Your task to perform on an android device: snooze an email in the gmail app Image 0: 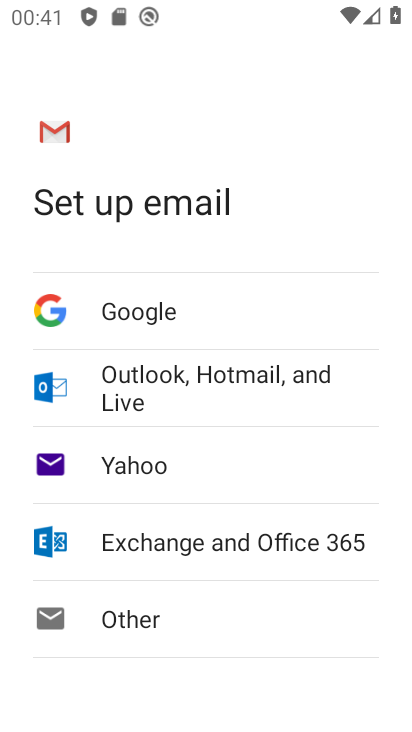
Step 0: press home button
Your task to perform on an android device: snooze an email in the gmail app Image 1: 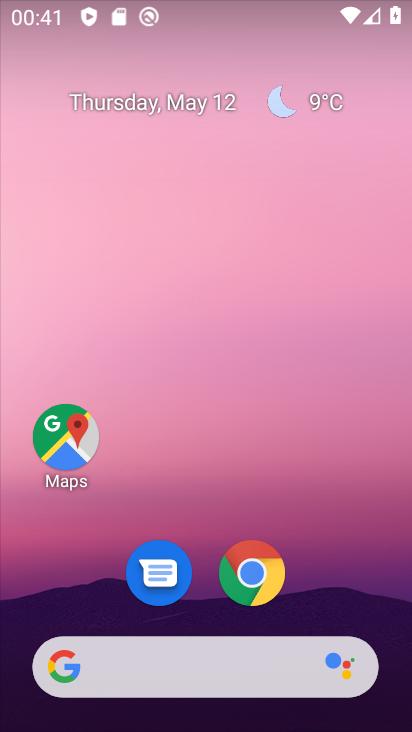
Step 1: drag from (204, 569) to (321, 3)
Your task to perform on an android device: snooze an email in the gmail app Image 2: 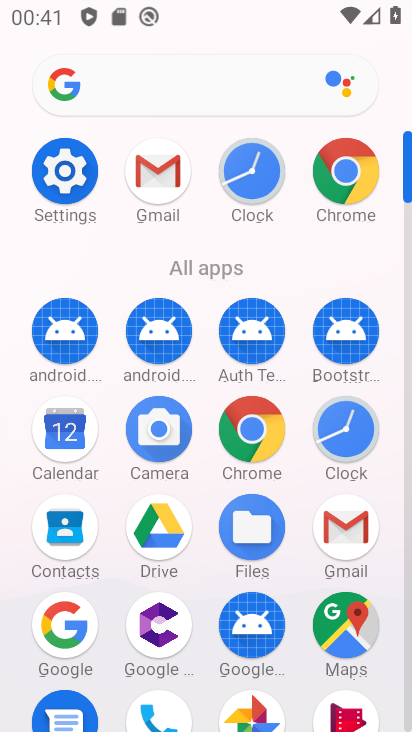
Step 2: drag from (282, 539) to (305, 282)
Your task to perform on an android device: snooze an email in the gmail app Image 3: 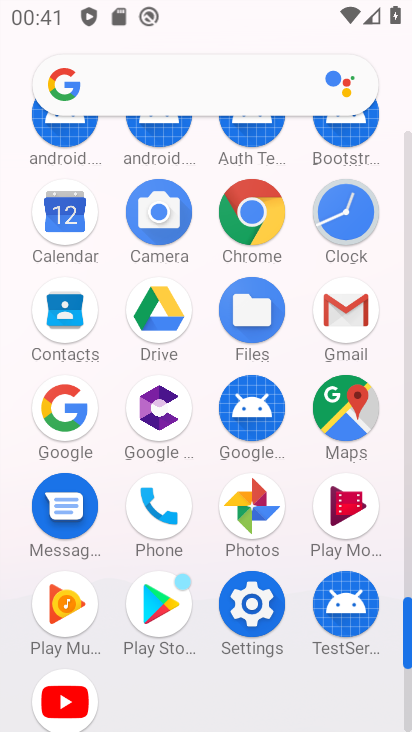
Step 3: click (364, 324)
Your task to perform on an android device: snooze an email in the gmail app Image 4: 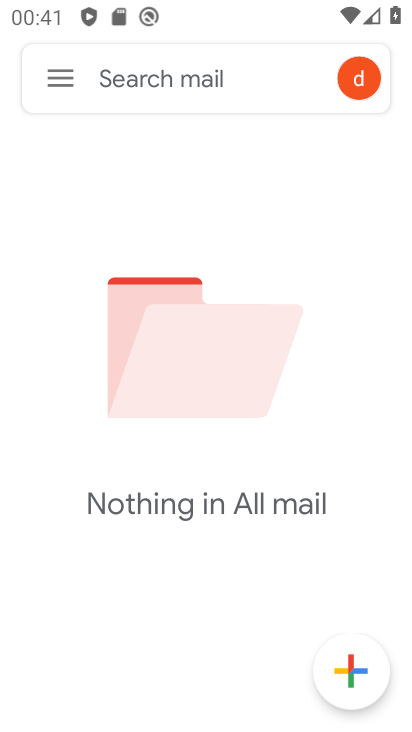
Step 4: click (56, 91)
Your task to perform on an android device: snooze an email in the gmail app Image 5: 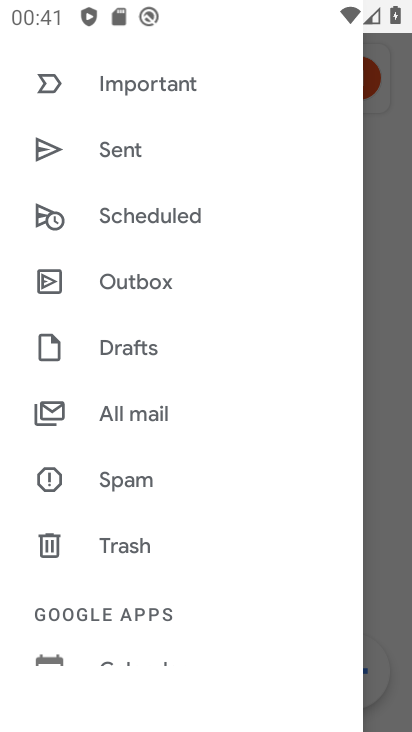
Step 5: task complete